Your task to perform on an android device: Set the phone to "Do not disturb". Image 0: 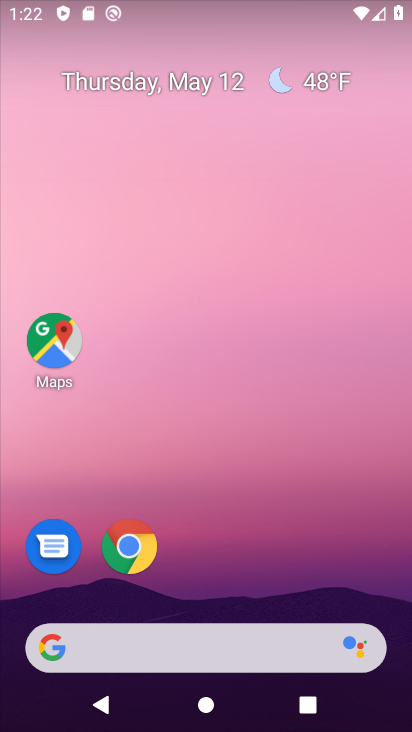
Step 0: drag from (292, 662) to (359, 364)
Your task to perform on an android device: Set the phone to "Do not disturb". Image 1: 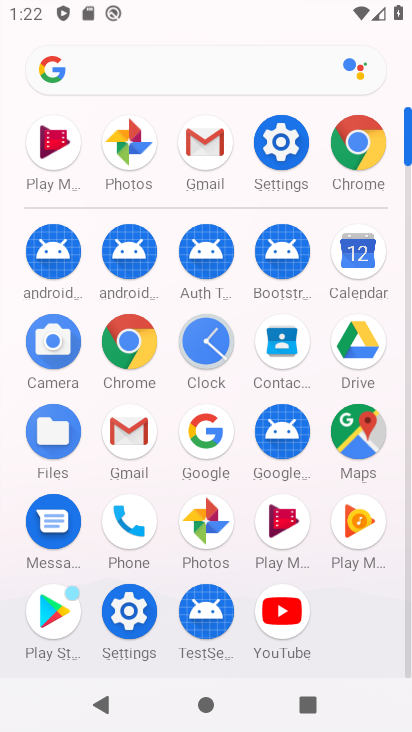
Step 1: click (282, 131)
Your task to perform on an android device: Set the phone to "Do not disturb". Image 2: 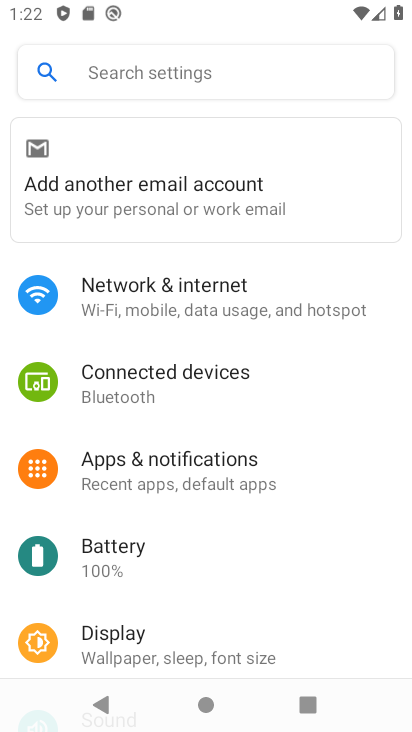
Step 2: click (123, 68)
Your task to perform on an android device: Set the phone to "Do not disturb". Image 3: 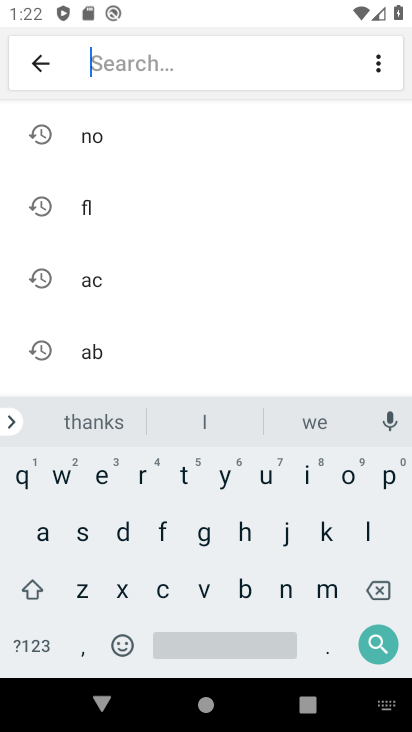
Step 3: click (119, 529)
Your task to perform on an android device: Set the phone to "Do not disturb". Image 4: 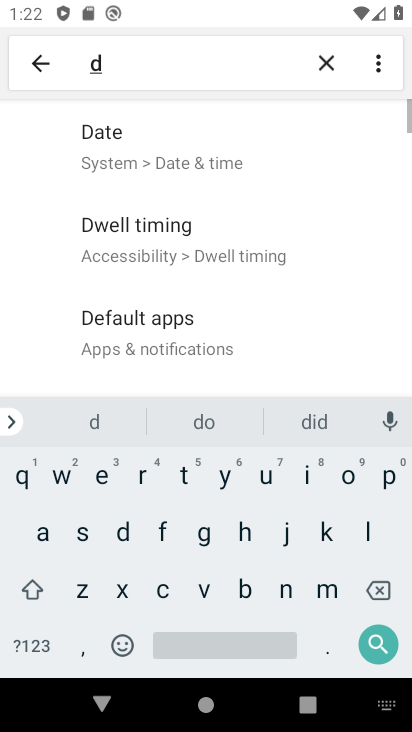
Step 4: click (280, 589)
Your task to perform on an android device: Set the phone to "Do not disturb". Image 5: 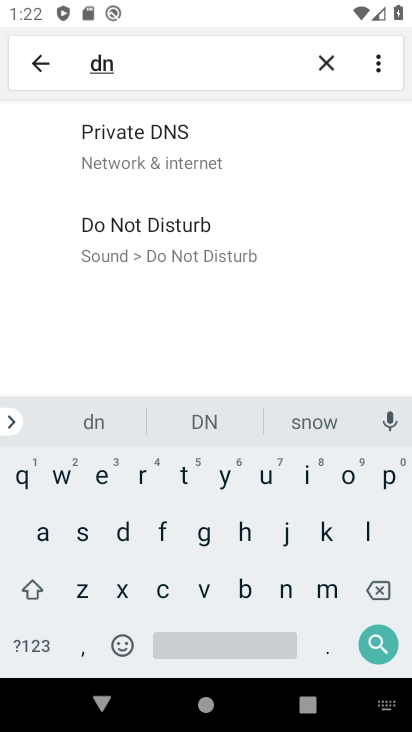
Step 5: click (154, 234)
Your task to perform on an android device: Set the phone to "Do not disturb". Image 6: 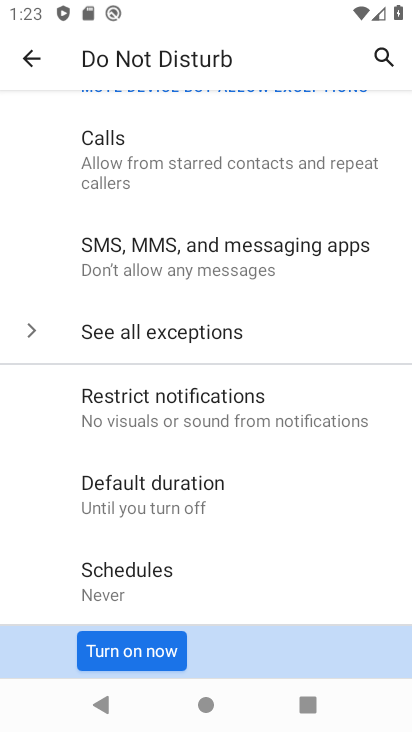
Step 6: click (106, 657)
Your task to perform on an android device: Set the phone to "Do not disturb". Image 7: 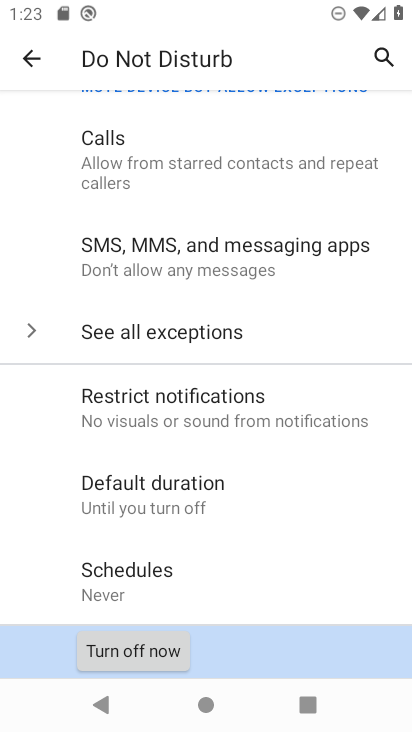
Step 7: task complete